Your task to perform on an android device: Go to Reddit.com Image 0: 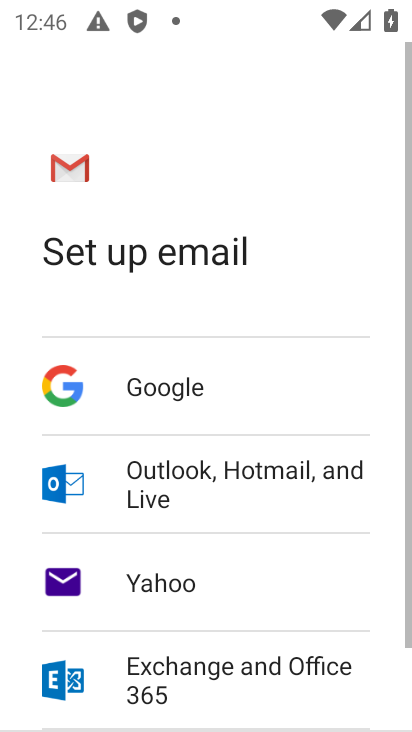
Step 0: press home button
Your task to perform on an android device: Go to Reddit.com Image 1: 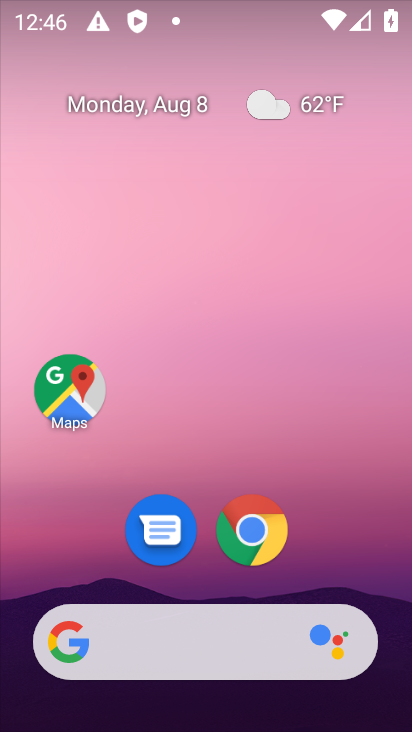
Step 1: click (258, 538)
Your task to perform on an android device: Go to Reddit.com Image 2: 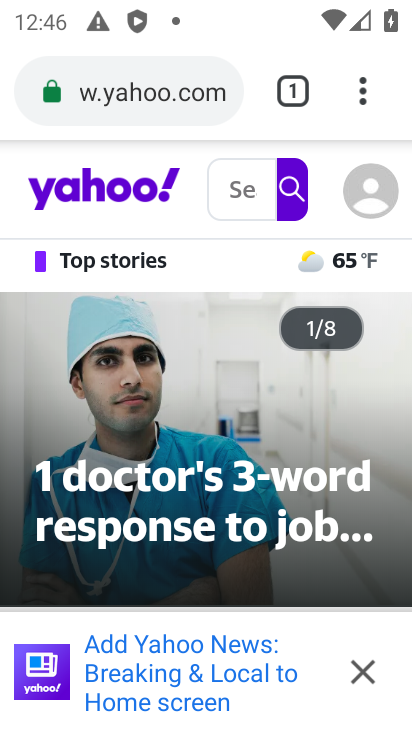
Step 2: drag from (363, 96) to (134, 182)
Your task to perform on an android device: Go to Reddit.com Image 3: 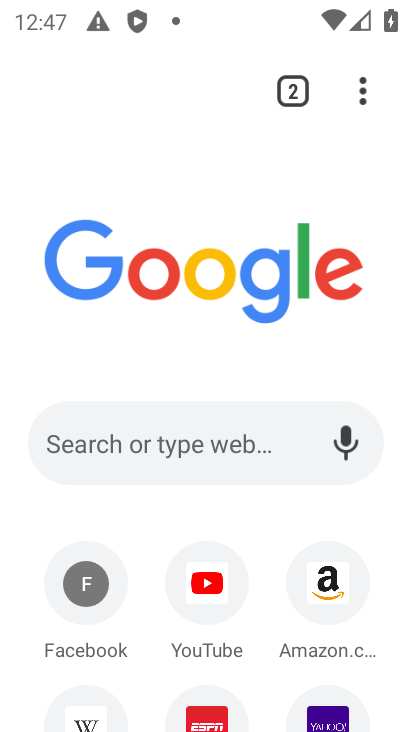
Step 3: click (187, 434)
Your task to perform on an android device: Go to Reddit.com Image 4: 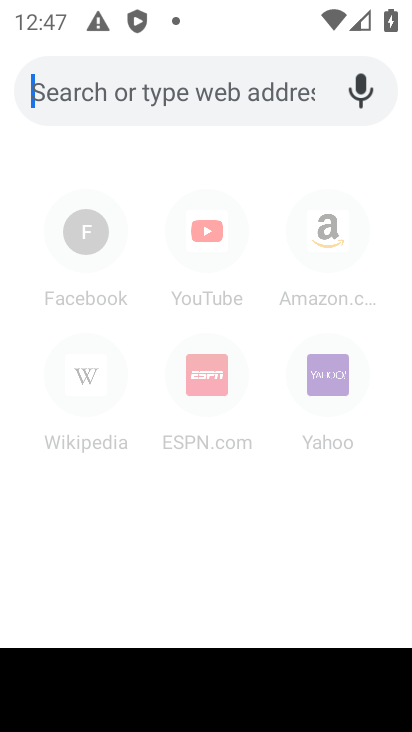
Step 4: type "Reddit..com"
Your task to perform on an android device: Go to Reddit.com Image 5: 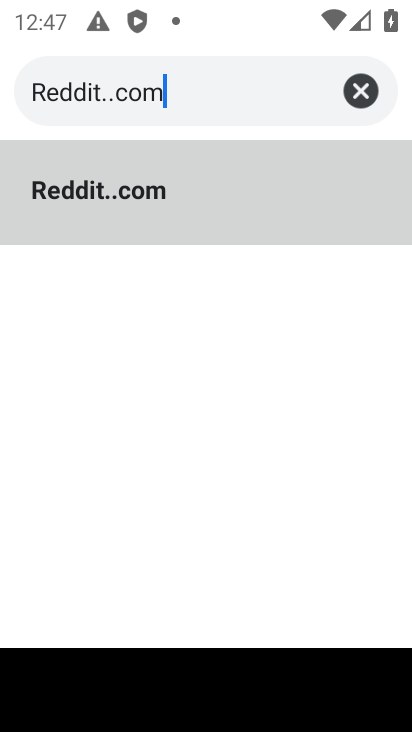
Step 5: click (80, 200)
Your task to perform on an android device: Go to Reddit.com Image 6: 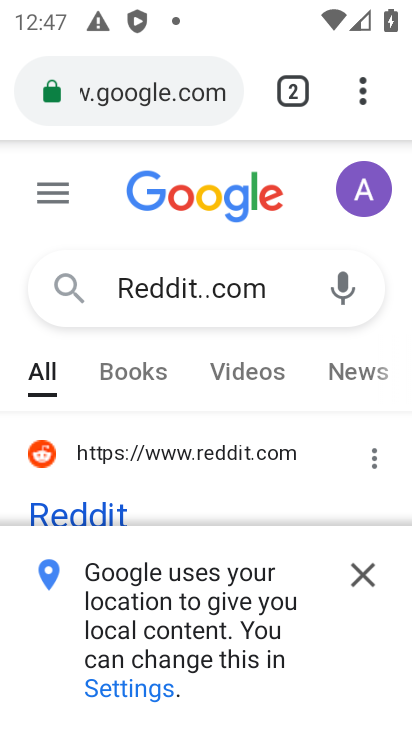
Step 6: click (84, 511)
Your task to perform on an android device: Go to Reddit.com Image 7: 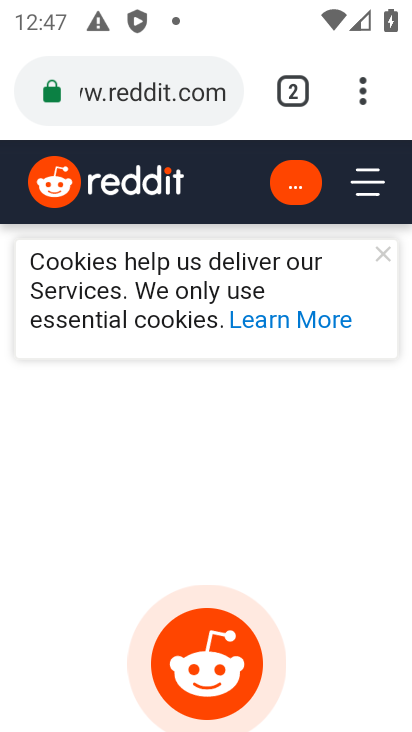
Step 7: task complete